Your task to perform on an android device: install app "PlayWell" Image 0: 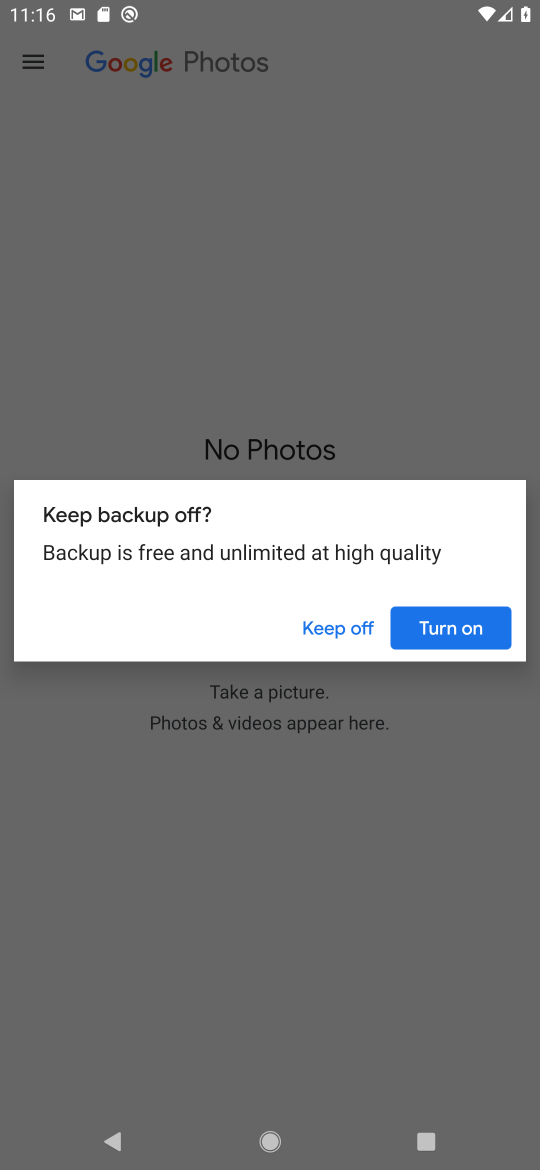
Step 0: press home button
Your task to perform on an android device: install app "PlayWell" Image 1: 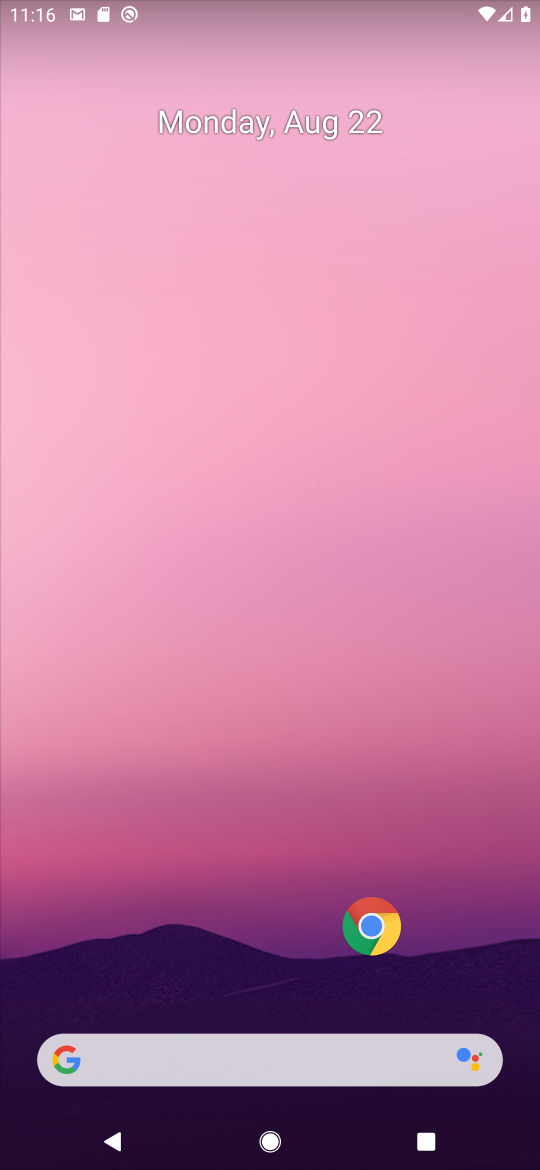
Step 1: drag from (352, 1028) to (299, 63)
Your task to perform on an android device: install app "PlayWell" Image 2: 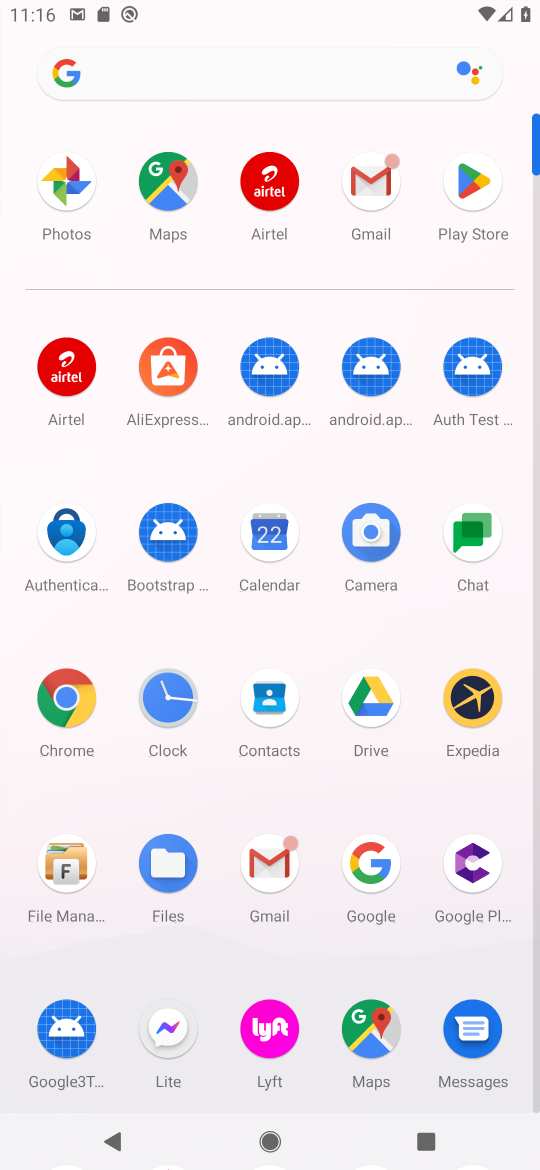
Step 2: click (487, 178)
Your task to perform on an android device: install app "PlayWell" Image 3: 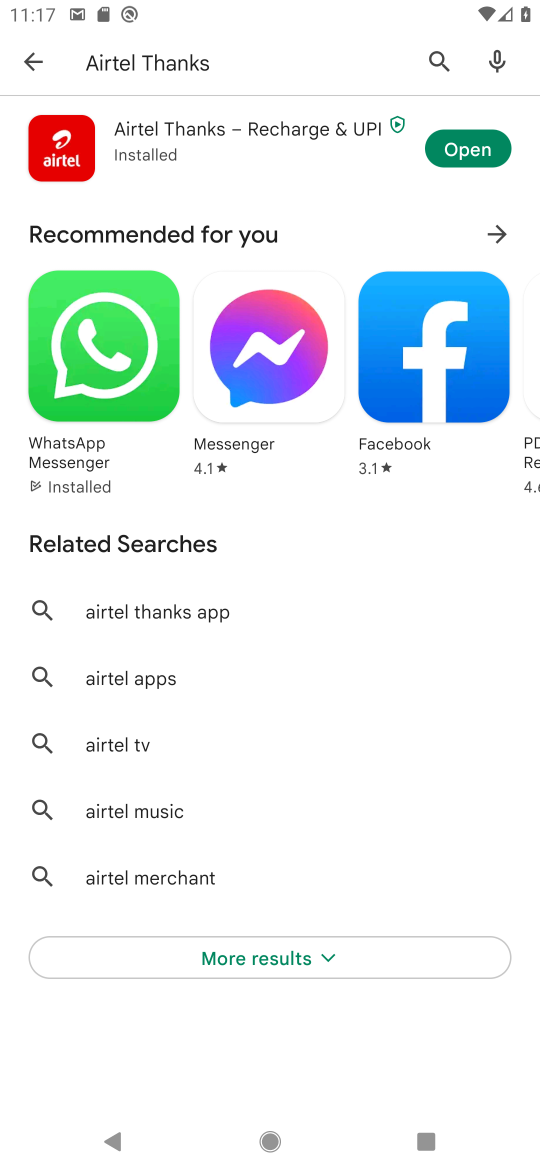
Step 3: press back button
Your task to perform on an android device: install app "PlayWell" Image 4: 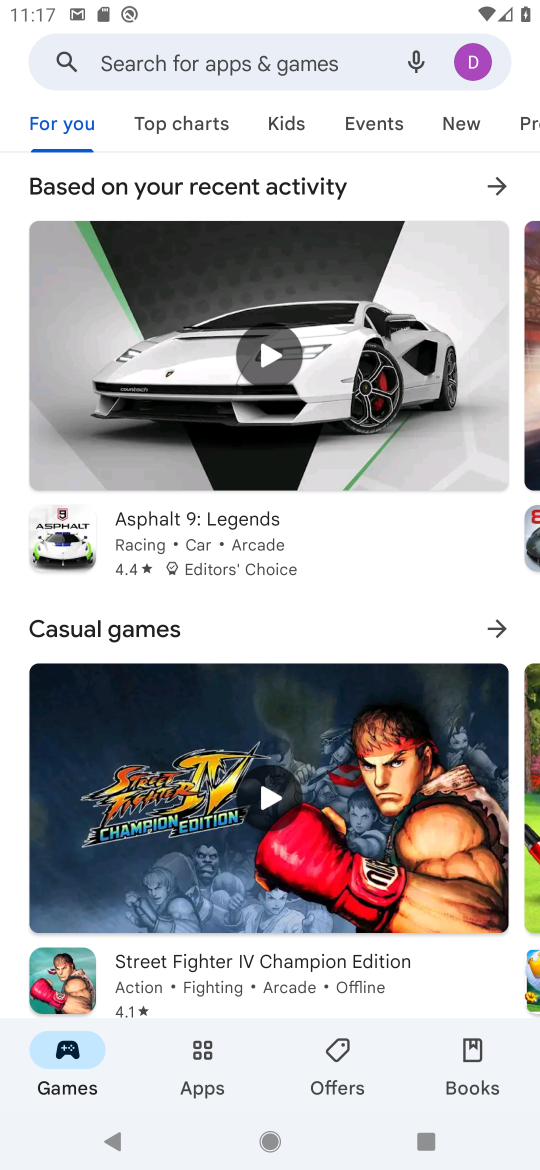
Step 4: click (268, 62)
Your task to perform on an android device: install app "PlayWell" Image 5: 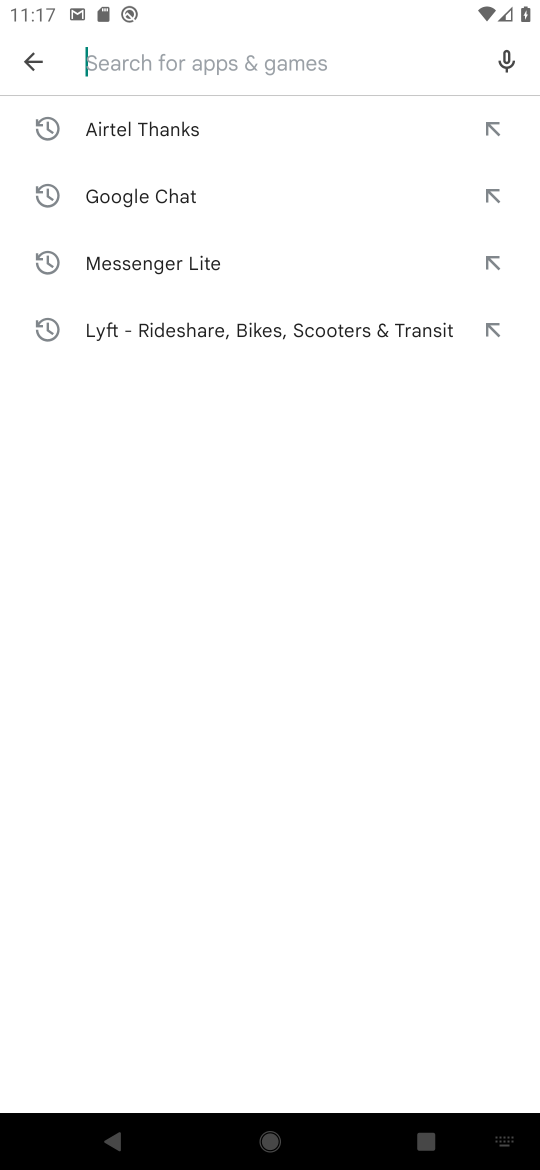
Step 5: type "PlayWell"
Your task to perform on an android device: install app "PlayWell" Image 6: 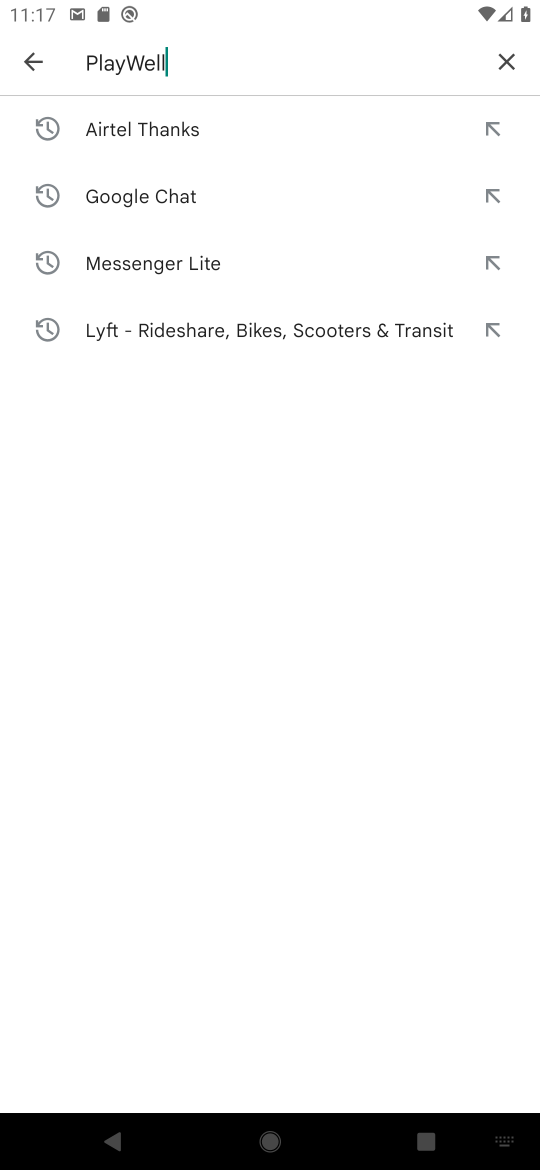
Step 6: press enter
Your task to perform on an android device: install app "PlayWell" Image 7: 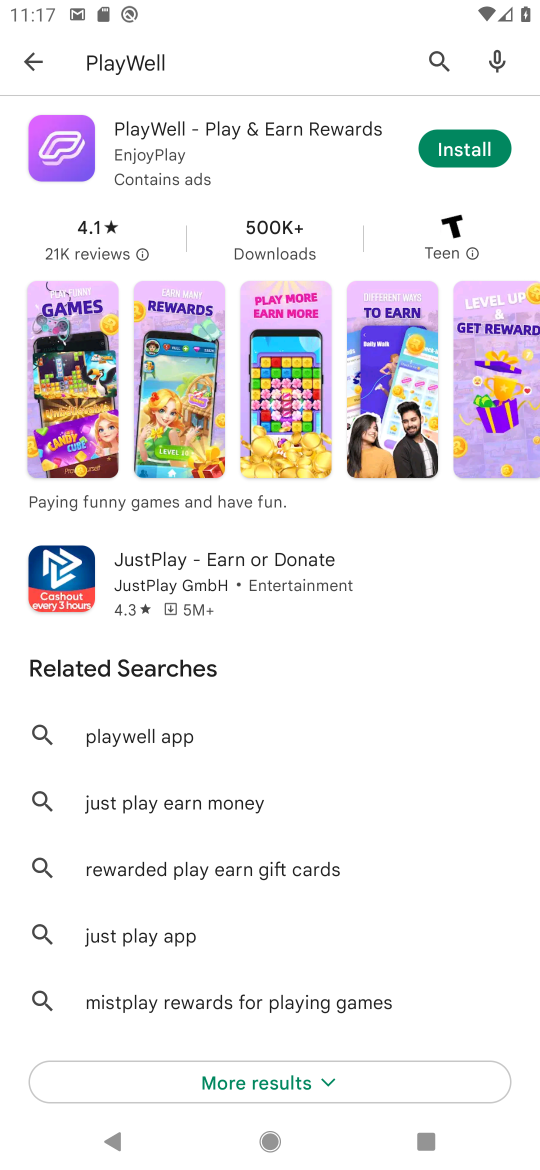
Step 7: click (491, 148)
Your task to perform on an android device: install app "PlayWell" Image 8: 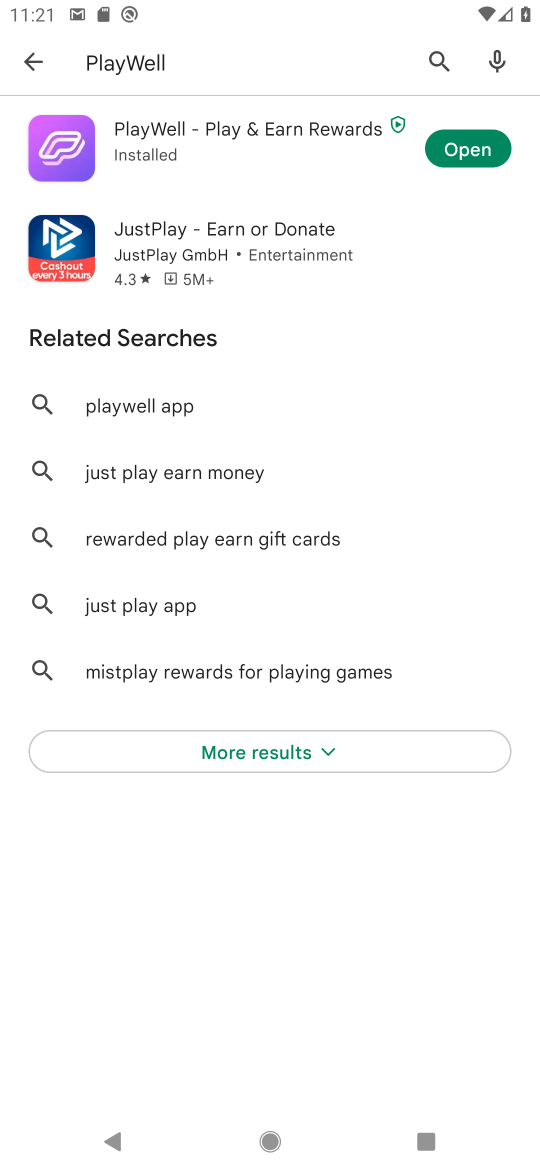
Step 8: task complete